Your task to perform on an android device: Go to notification settings Image 0: 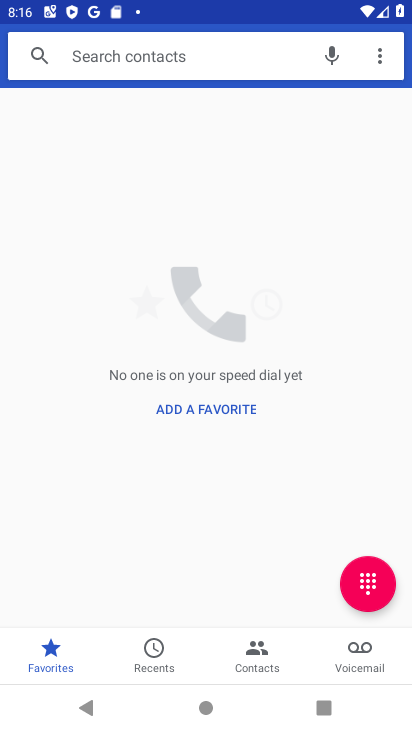
Step 0: press home button
Your task to perform on an android device: Go to notification settings Image 1: 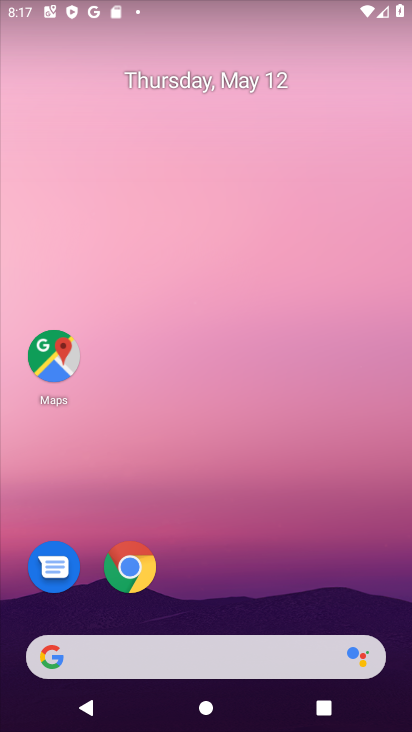
Step 1: drag from (194, 616) to (201, 153)
Your task to perform on an android device: Go to notification settings Image 2: 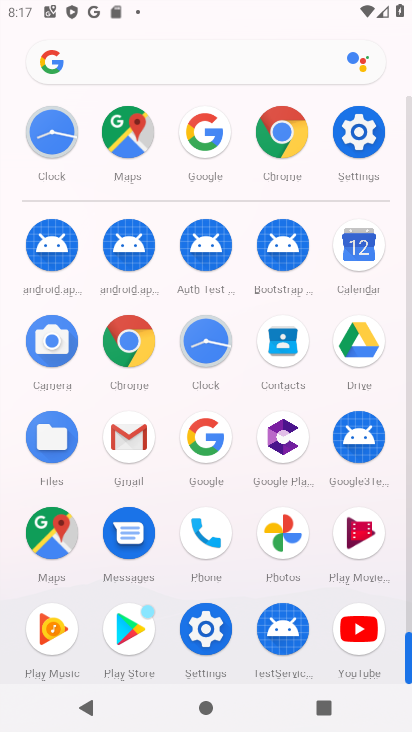
Step 2: click (344, 155)
Your task to perform on an android device: Go to notification settings Image 3: 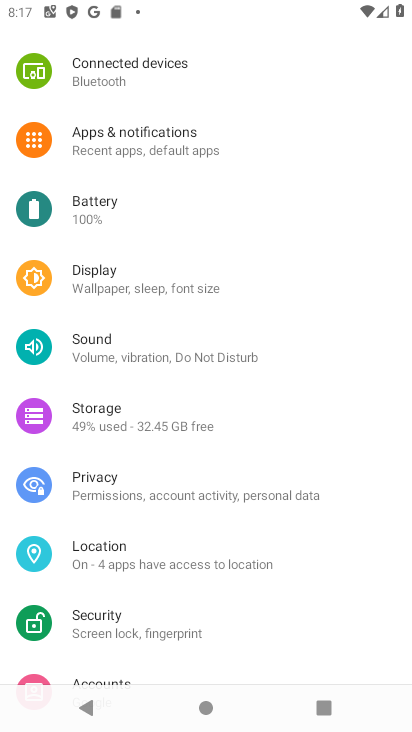
Step 3: click (220, 164)
Your task to perform on an android device: Go to notification settings Image 4: 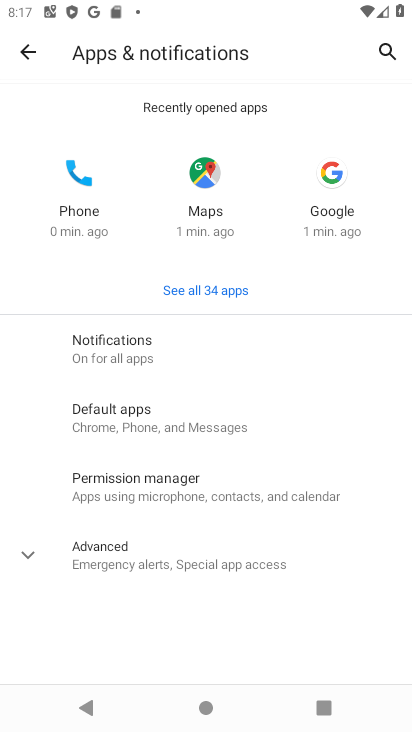
Step 4: click (189, 350)
Your task to perform on an android device: Go to notification settings Image 5: 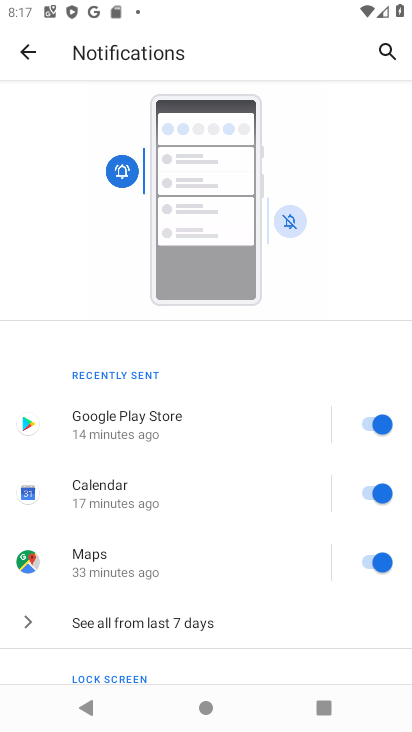
Step 5: task complete